Your task to perform on an android device: Open Chrome and go to the settings page Image 0: 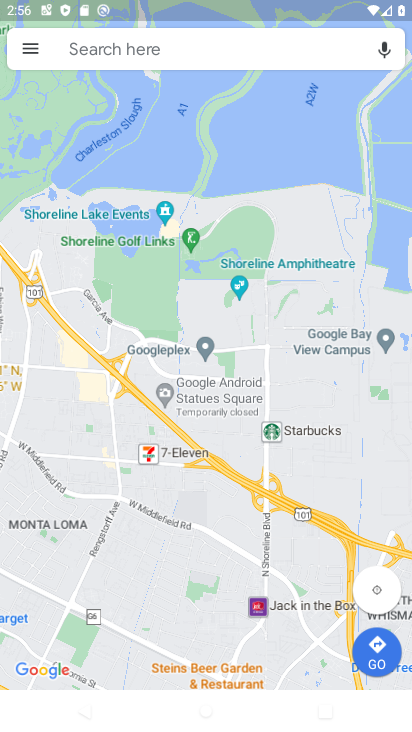
Step 0: press home button
Your task to perform on an android device: Open Chrome and go to the settings page Image 1: 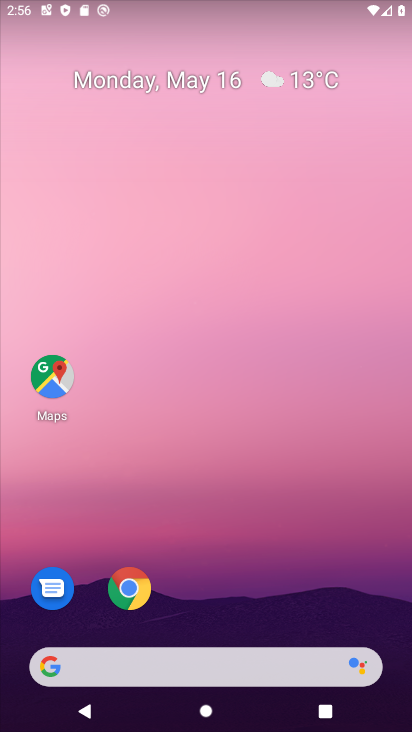
Step 1: drag from (352, 693) to (342, 88)
Your task to perform on an android device: Open Chrome and go to the settings page Image 2: 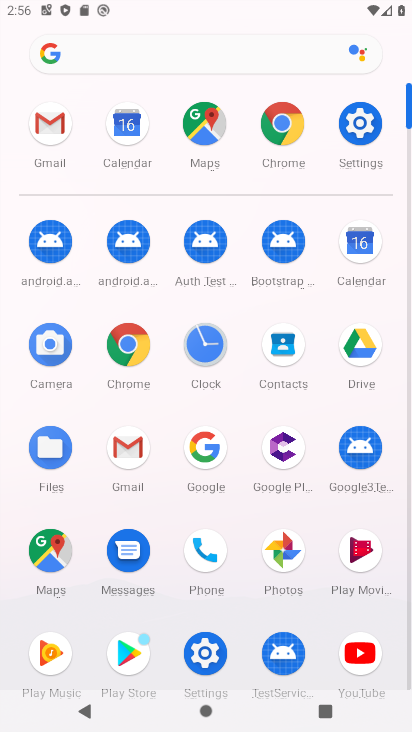
Step 2: click (127, 339)
Your task to perform on an android device: Open Chrome and go to the settings page Image 3: 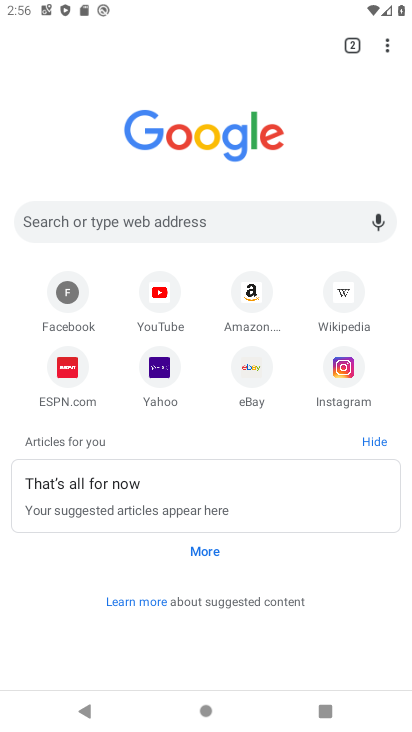
Step 3: click (379, 45)
Your task to perform on an android device: Open Chrome and go to the settings page Image 4: 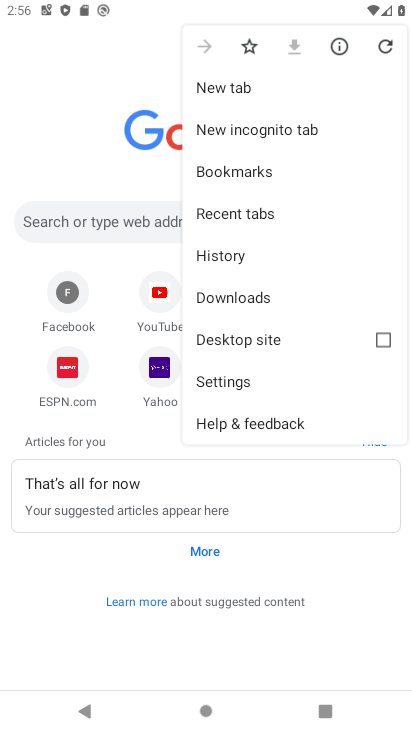
Step 4: click (248, 381)
Your task to perform on an android device: Open Chrome and go to the settings page Image 5: 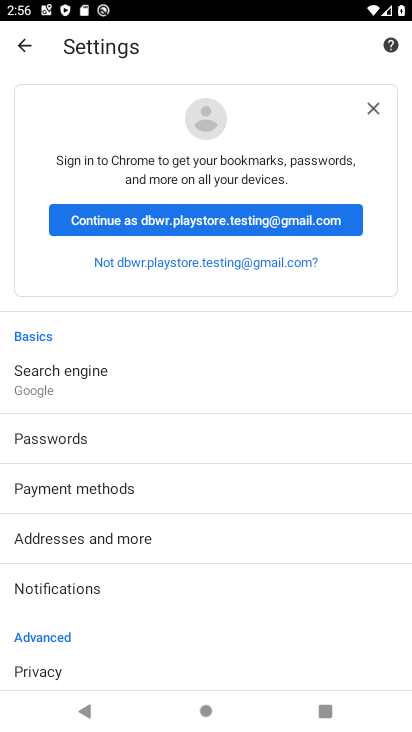
Step 5: task complete